Your task to perform on an android device: What's on my calendar today? Image 0: 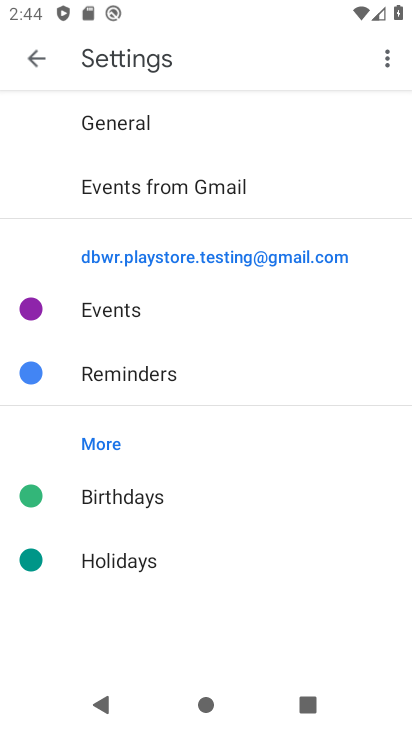
Step 0: press home button
Your task to perform on an android device: What's on my calendar today? Image 1: 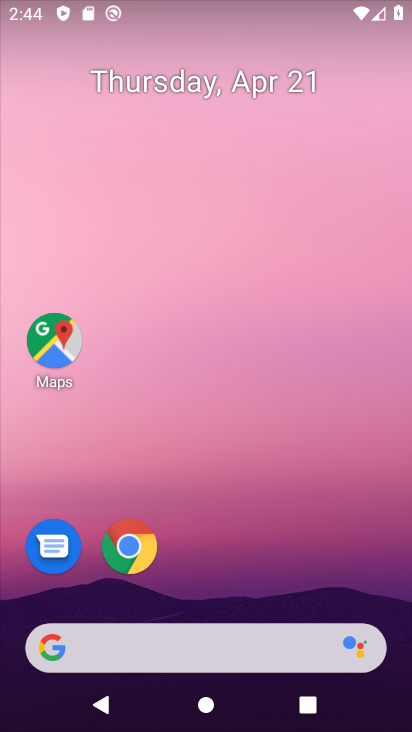
Step 1: drag from (198, 562) to (175, 242)
Your task to perform on an android device: What's on my calendar today? Image 2: 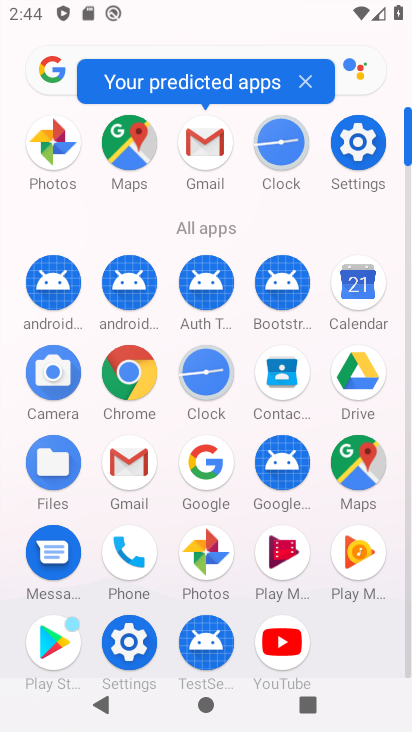
Step 2: click (366, 286)
Your task to perform on an android device: What's on my calendar today? Image 3: 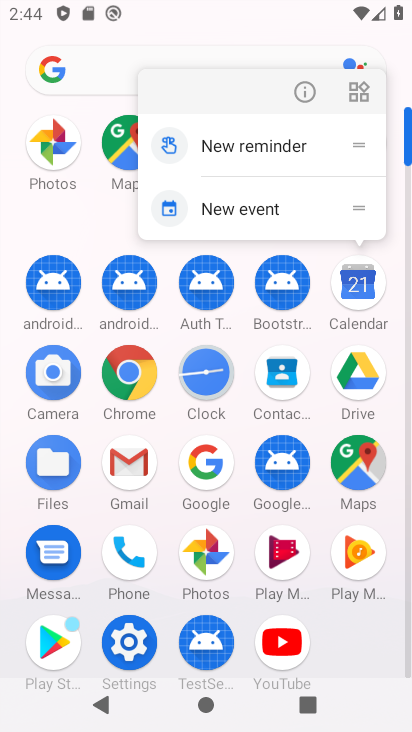
Step 3: click (364, 288)
Your task to perform on an android device: What's on my calendar today? Image 4: 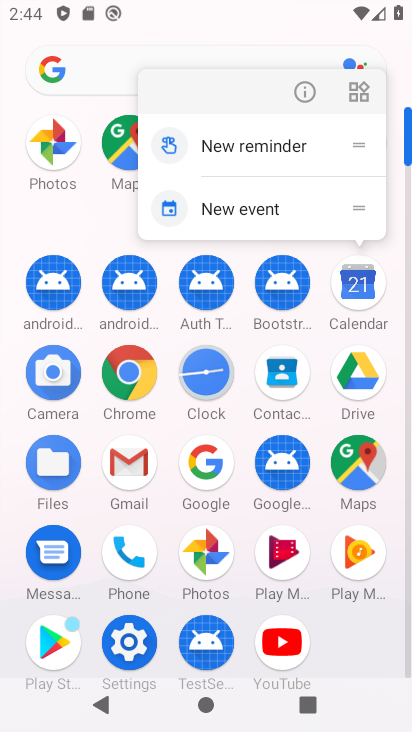
Step 4: click (364, 288)
Your task to perform on an android device: What's on my calendar today? Image 5: 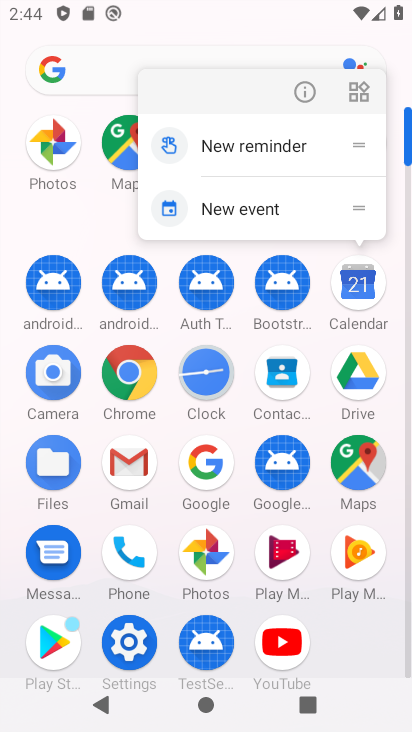
Step 5: click (364, 288)
Your task to perform on an android device: What's on my calendar today? Image 6: 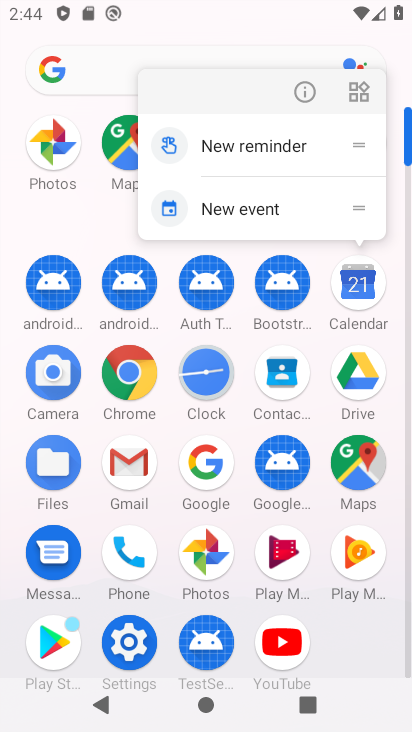
Step 6: click (364, 288)
Your task to perform on an android device: What's on my calendar today? Image 7: 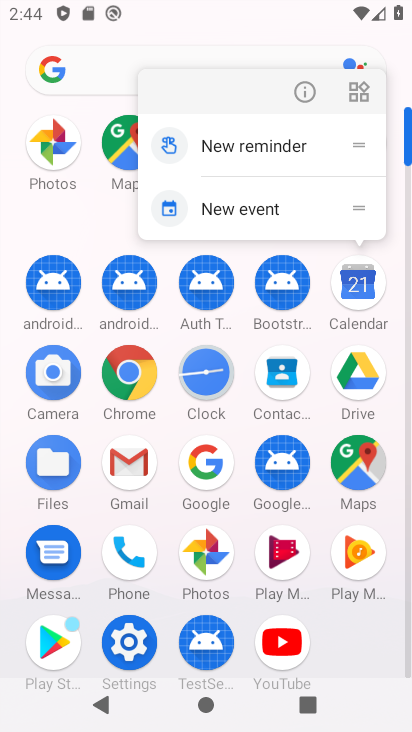
Step 7: click (364, 288)
Your task to perform on an android device: What's on my calendar today? Image 8: 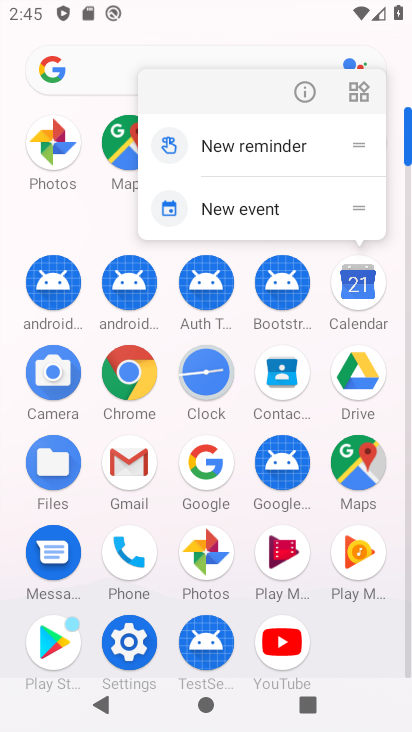
Step 8: click (364, 288)
Your task to perform on an android device: What's on my calendar today? Image 9: 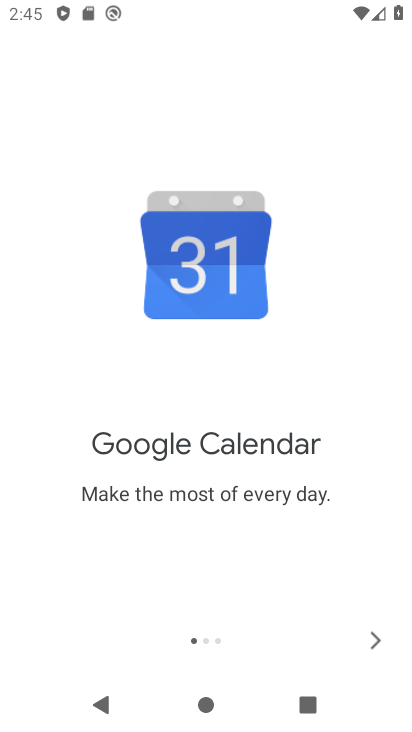
Step 9: click (375, 632)
Your task to perform on an android device: What's on my calendar today? Image 10: 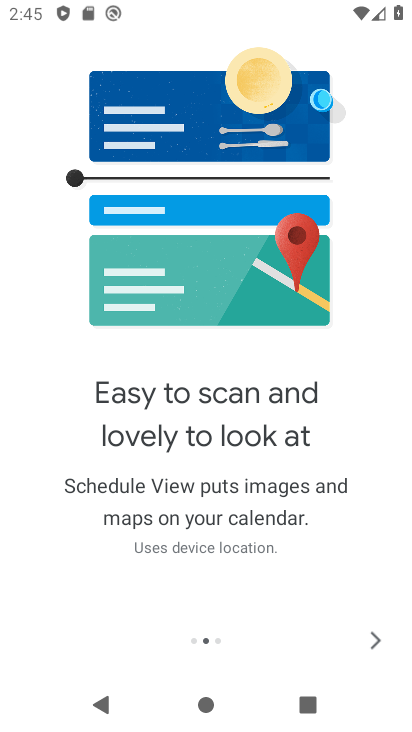
Step 10: click (367, 648)
Your task to perform on an android device: What's on my calendar today? Image 11: 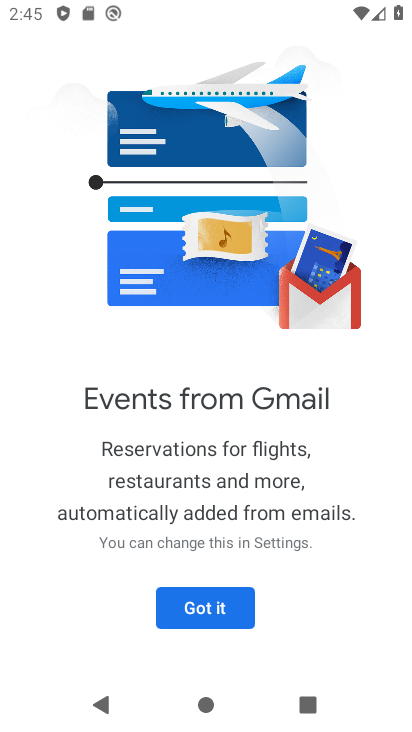
Step 11: click (229, 616)
Your task to perform on an android device: What's on my calendar today? Image 12: 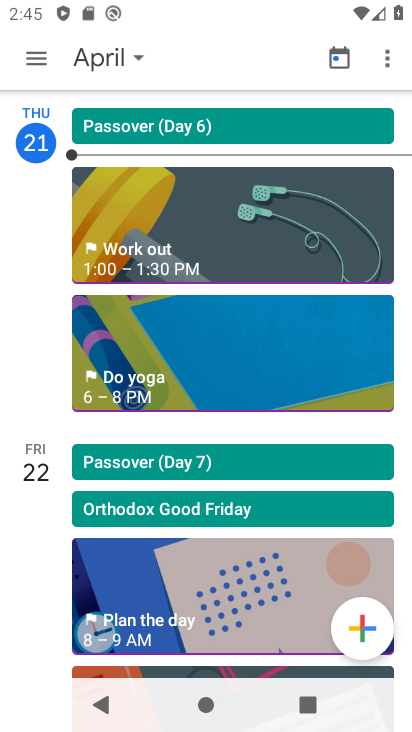
Step 12: task complete